Your task to perform on an android device: Go to Yahoo.com Image 0: 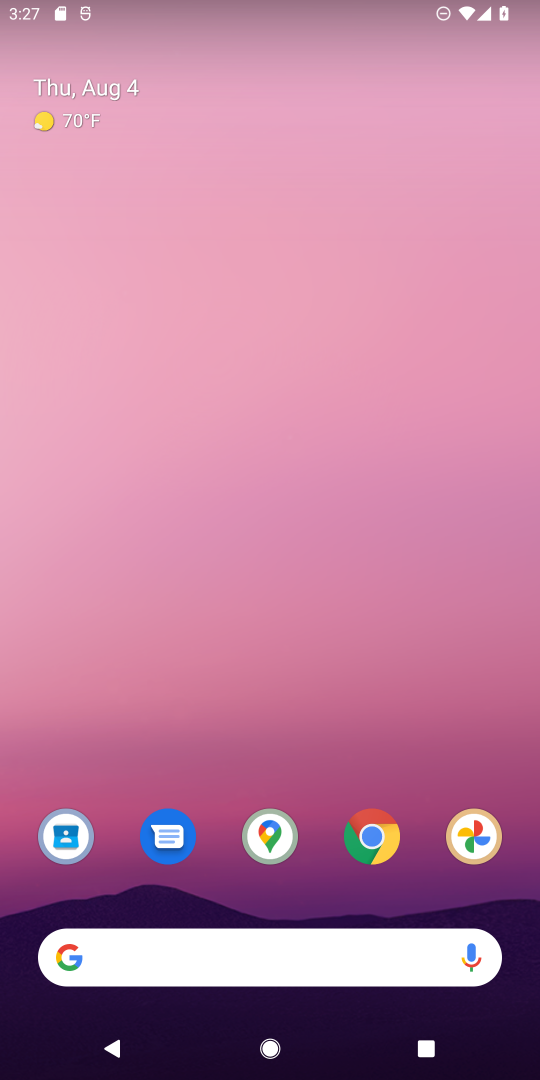
Step 0: click (291, 957)
Your task to perform on an android device: Go to Yahoo.com Image 1: 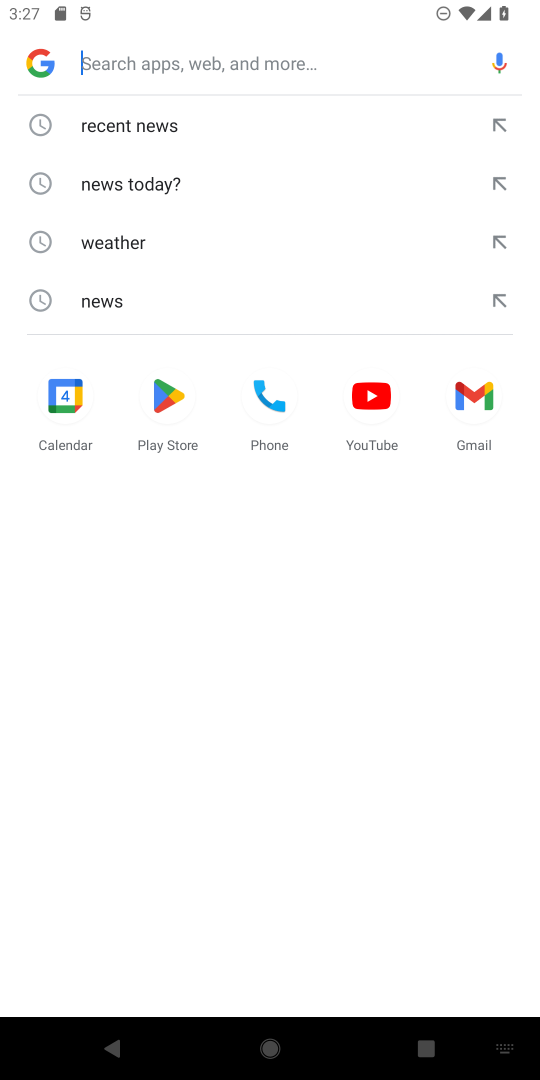
Step 1: type "yahoo.com"
Your task to perform on an android device: Go to Yahoo.com Image 2: 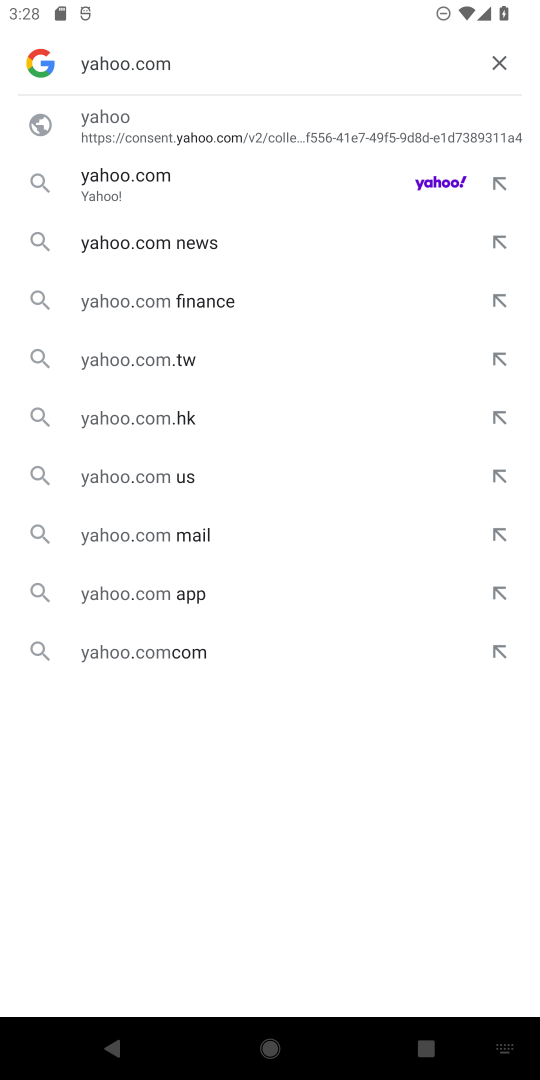
Step 2: click (295, 105)
Your task to perform on an android device: Go to Yahoo.com Image 3: 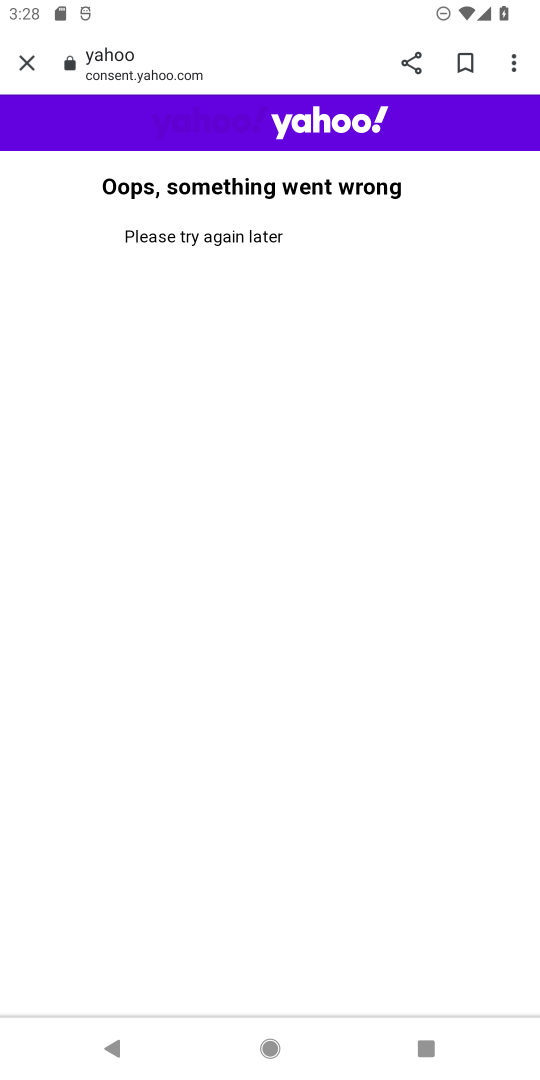
Step 3: task complete